Your task to perform on an android device: turn on bluetooth scan Image 0: 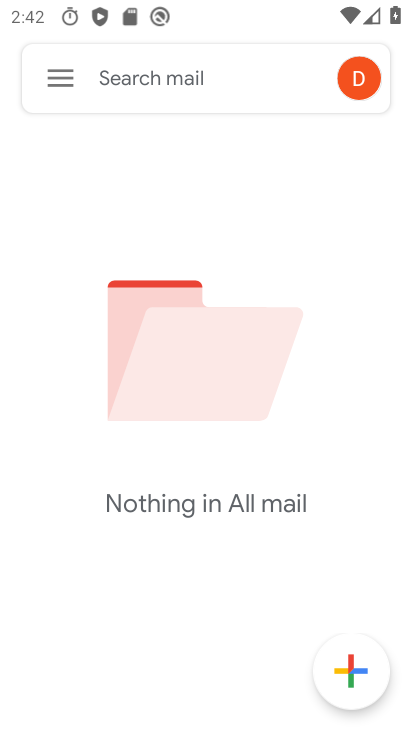
Step 0: press home button
Your task to perform on an android device: turn on bluetooth scan Image 1: 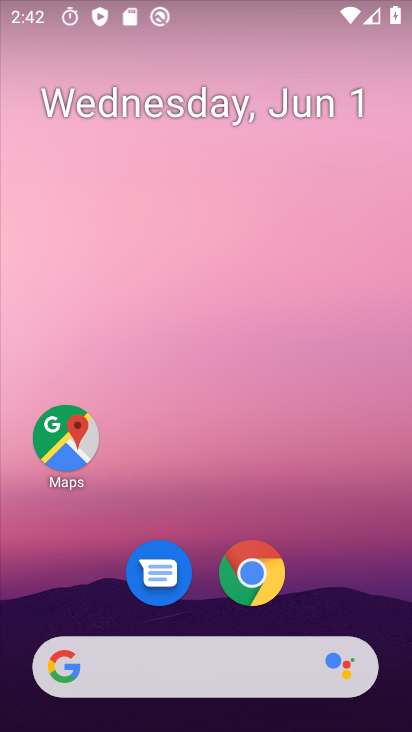
Step 1: drag from (198, 611) to (209, 289)
Your task to perform on an android device: turn on bluetooth scan Image 2: 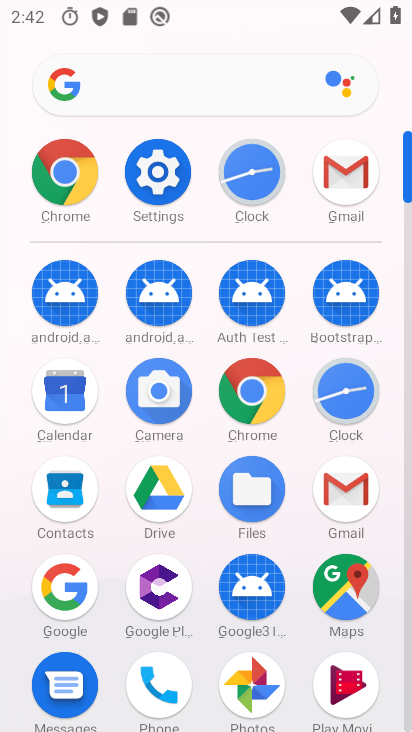
Step 2: click (150, 194)
Your task to perform on an android device: turn on bluetooth scan Image 3: 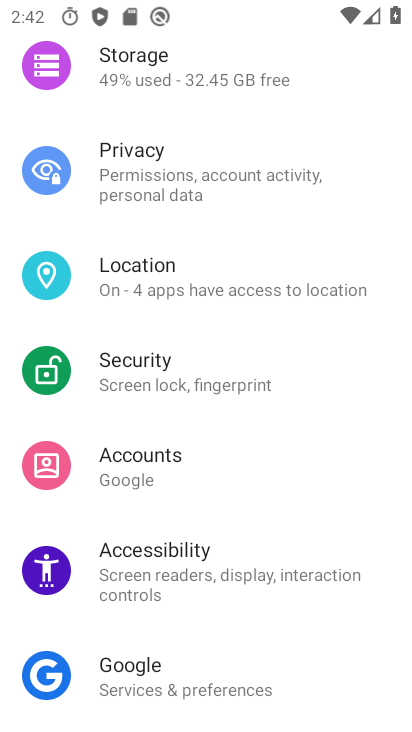
Step 3: click (196, 308)
Your task to perform on an android device: turn on bluetooth scan Image 4: 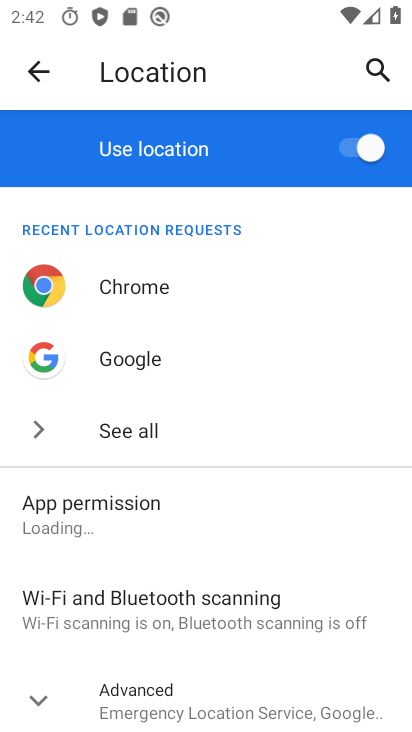
Step 4: click (218, 590)
Your task to perform on an android device: turn on bluetooth scan Image 5: 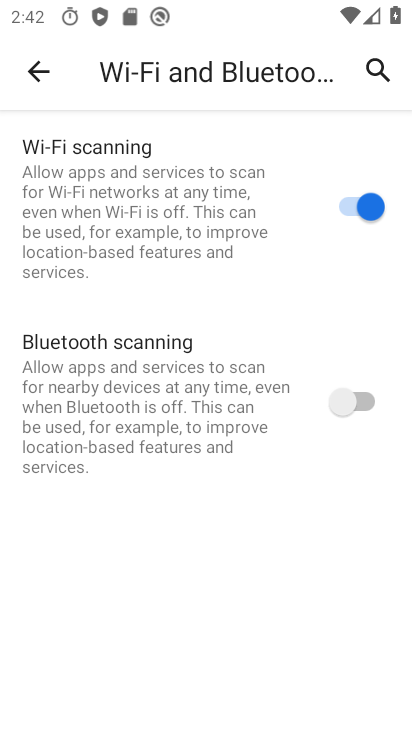
Step 5: click (366, 406)
Your task to perform on an android device: turn on bluetooth scan Image 6: 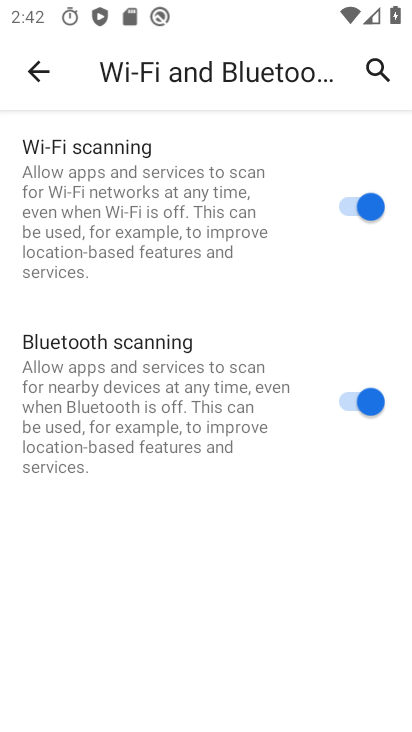
Step 6: task complete